Your task to perform on an android device: turn off improve location accuracy Image 0: 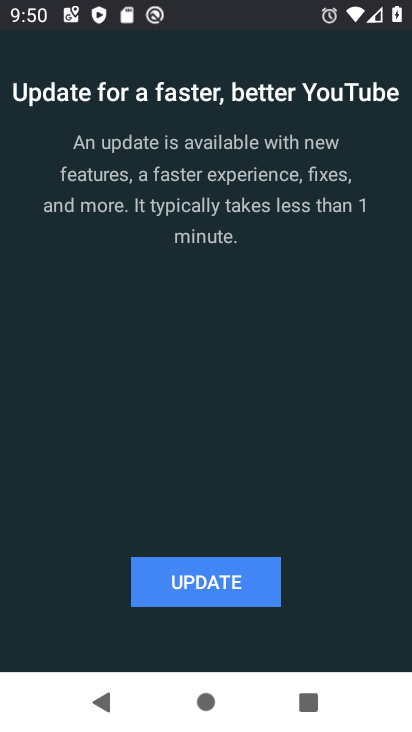
Step 0: press home button
Your task to perform on an android device: turn off improve location accuracy Image 1: 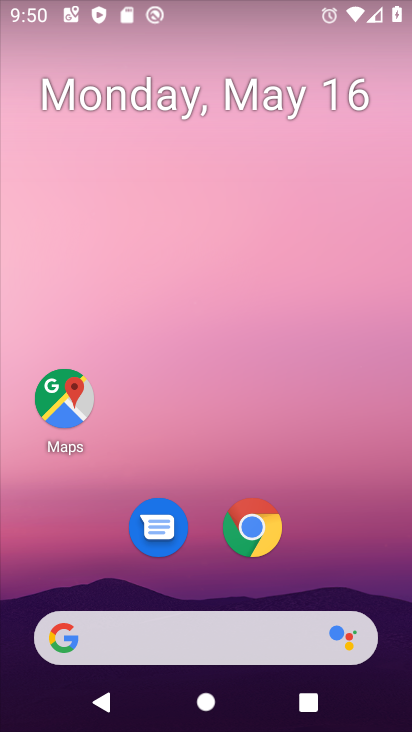
Step 1: drag from (366, 595) to (344, 3)
Your task to perform on an android device: turn off improve location accuracy Image 2: 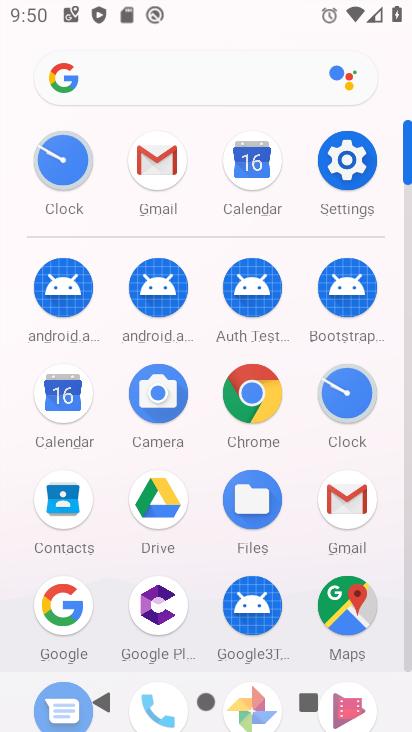
Step 2: click (336, 158)
Your task to perform on an android device: turn off improve location accuracy Image 3: 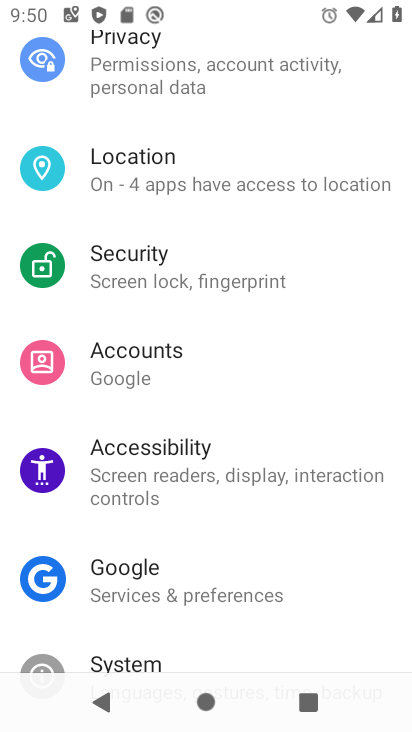
Step 3: click (127, 182)
Your task to perform on an android device: turn off improve location accuracy Image 4: 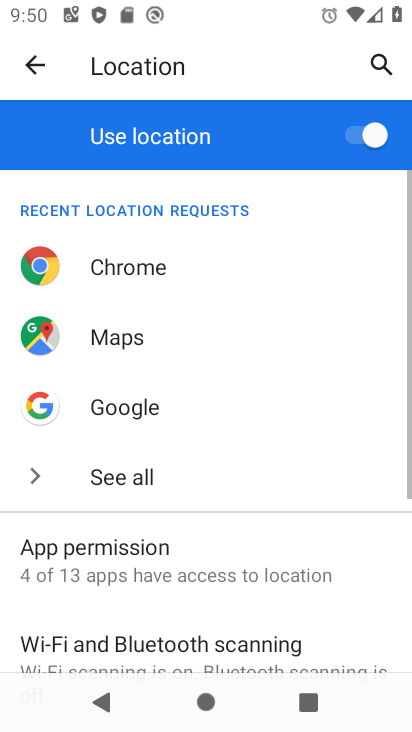
Step 4: drag from (200, 464) to (213, 63)
Your task to perform on an android device: turn off improve location accuracy Image 5: 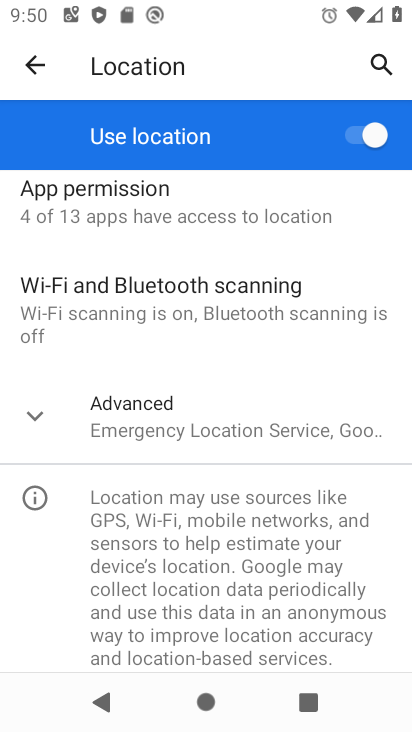
Step 5: click (30, 418)
Your task to perform on an android device: turn off improve location accuracy Image 6: 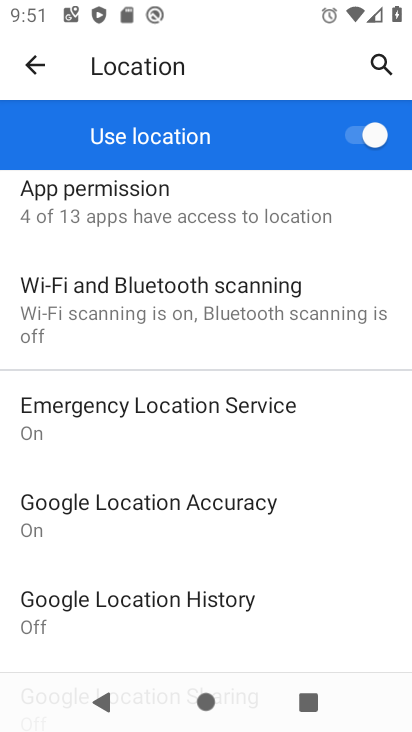
Step 6: click (121, 507)
Your task to perform on an android device: turn off improve location accuracy Image 7: 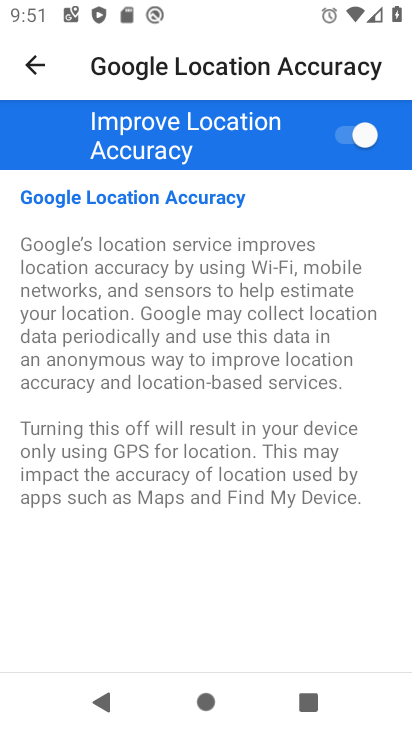
Step 7: click (353, 135)
Your task to perform on an android device: turn off improve location accuracy Image 8: 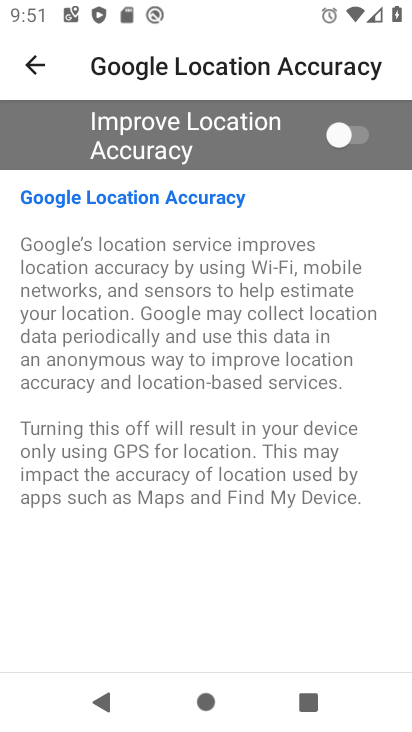
Step 8: task complete